Your task to perform on an android device: add a label to a message in the gmail app Image 0: 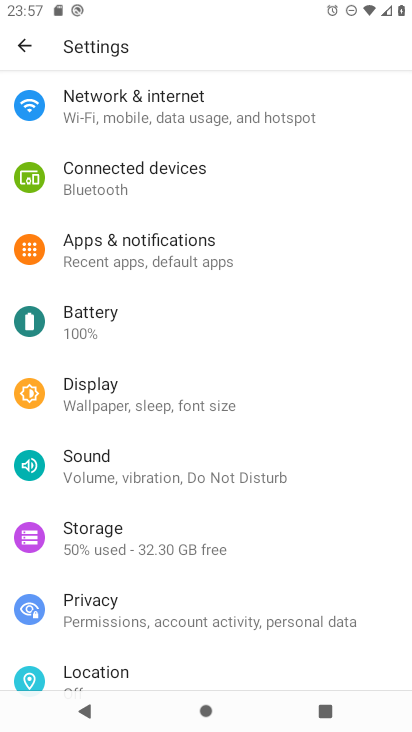
Step 0: press home button
Your task to perform on an android device: add a label to a message in the gmail app Image 1: 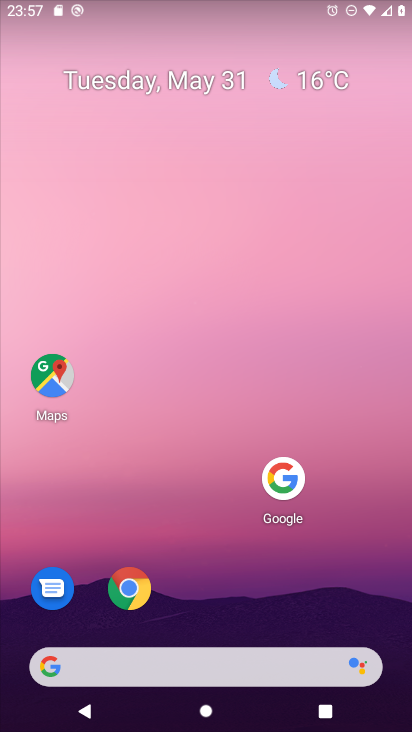
Step 1: drag from (151, 671) to (246, 278)
Your task to perform on an android device: add a label to a message in the gmail app Image 2: 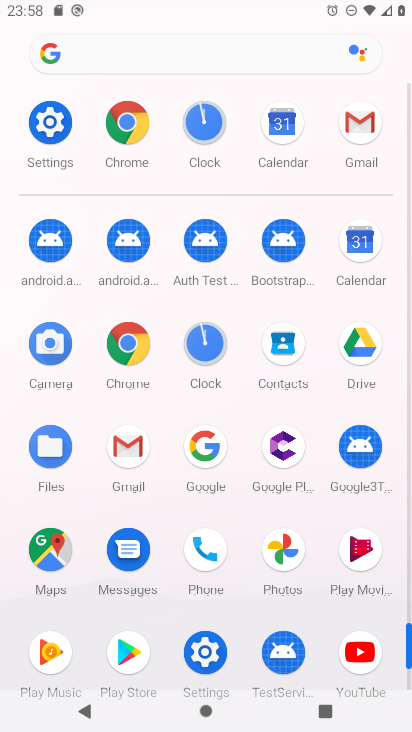
Step 2: click (368, 125)
Your task to perform on an android device: add a label to a message in the gmail app Image 3: 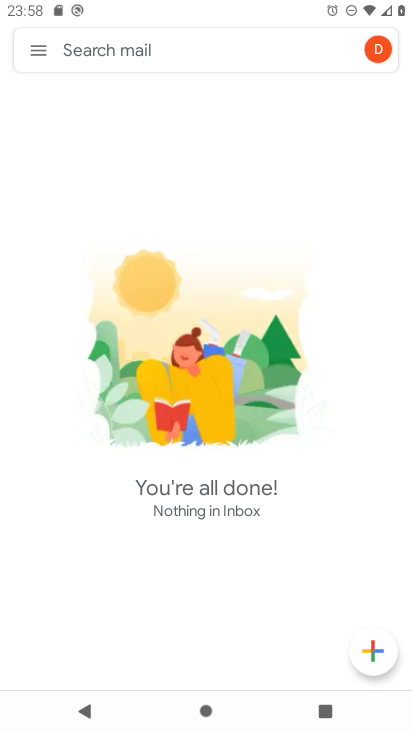
Step 3: task complete